Your task to perform on an android device: Open location settings Image 0: 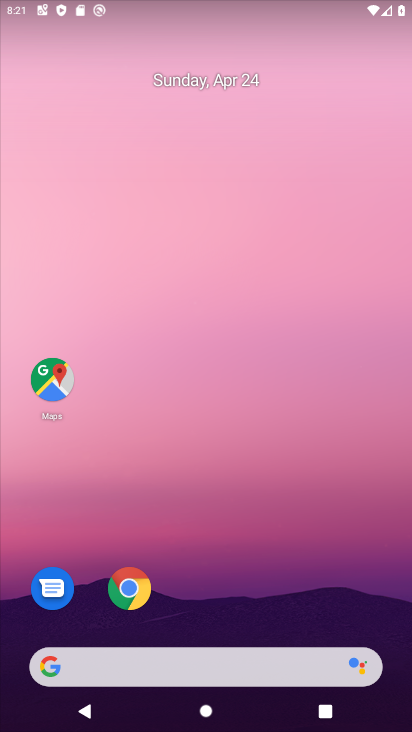
Step 0: drag from (245, 570) to (219, 36)
Your task to perform on an android device: Open location settings Image 1: 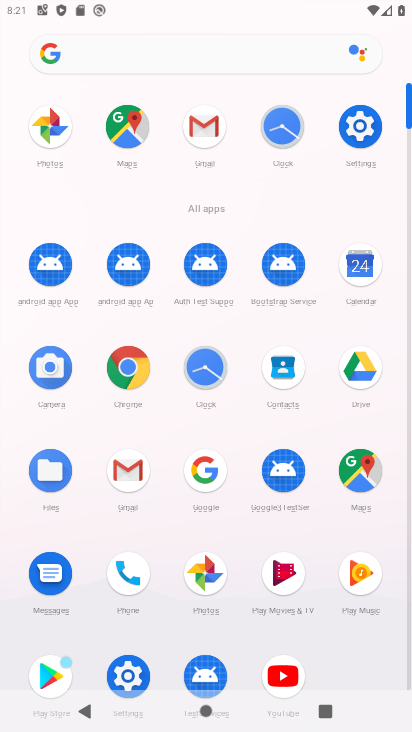
Step 1: click (360, 128)
Your task to perform on an android device: Open location settings Image 2: 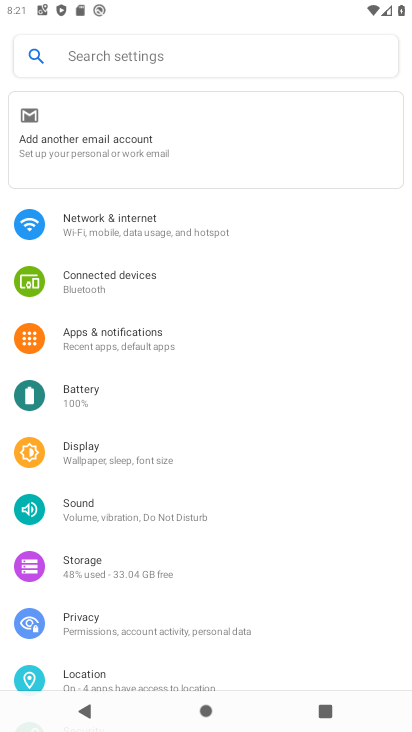
Step 2: drag from (180, 426) to (184, 338)
Your task to perform on an android device: Open location settings Image 3: 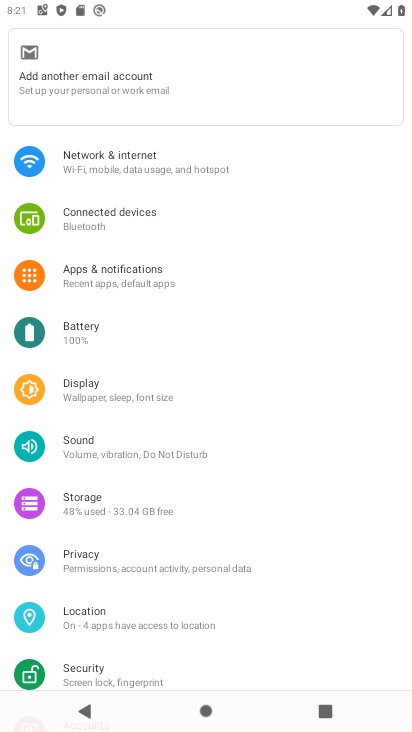
Step 3: click (83, 617)
Your task to perform on an android device: Open location settings Image 4: 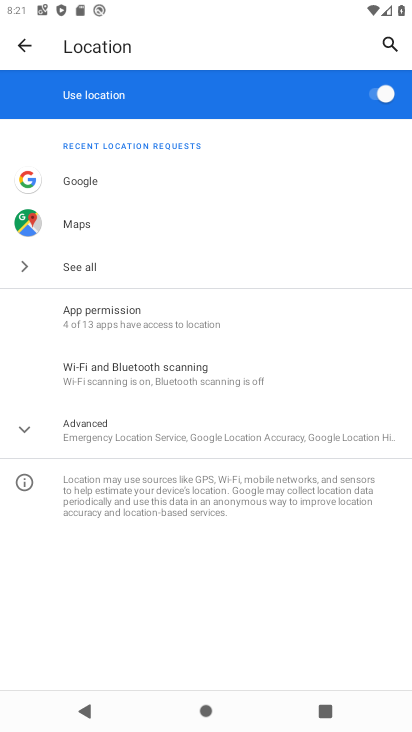
Step 4: task complete